Your task to perform on an android device: check the backup settings in the google photos Image 0: 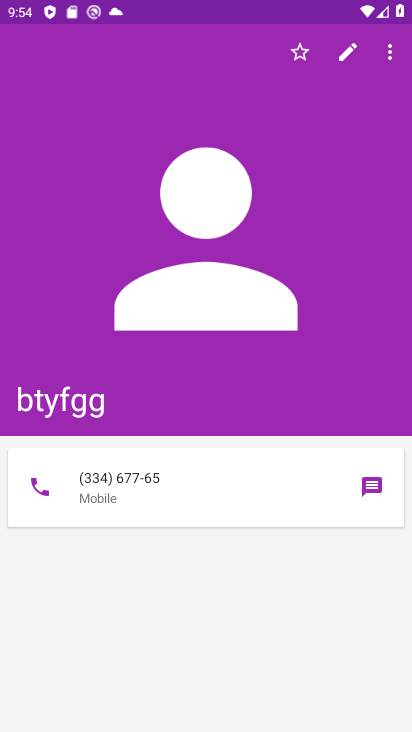
Step 0: press home button
Your task to perform on an android device: check the backup settings in the google photos Image 1: 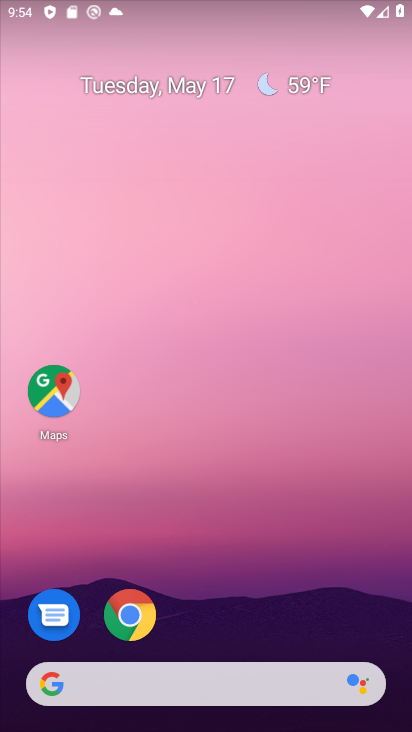
Step 1: drag from (138, 692) to (307, 0)
Your task to perform on an android device: check the backup settings in the google photos Image 2: 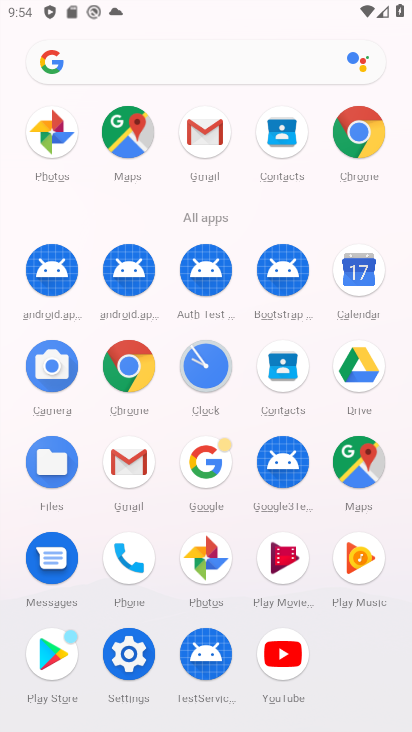
Step 2: click (45, 139)
Your task to perform on an android device: check the backup settings in the google photos Image 3: 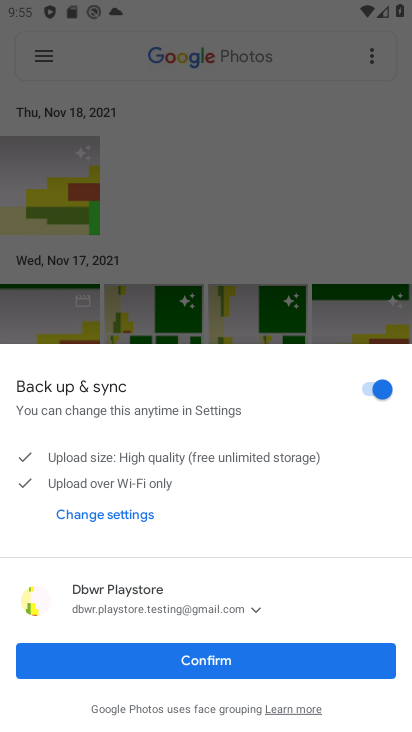
Step 3: click (181, 657)
Your task to perform on an android device: check the backup settings in the google photos Image 4: 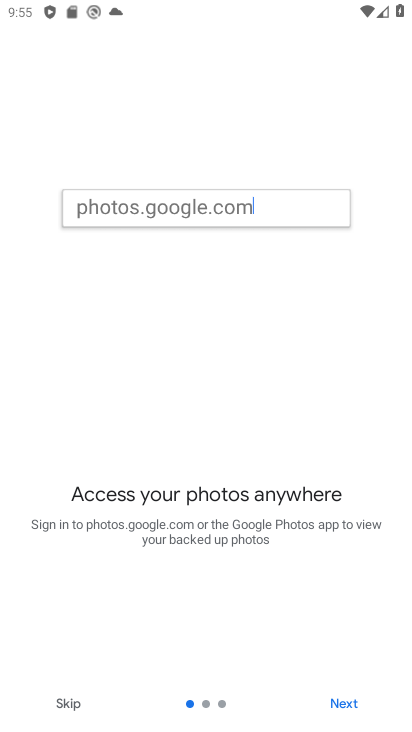
Step 4: click (334, 707)
Your task to perform on an android device: check the backup settings in the google photos Image 5: 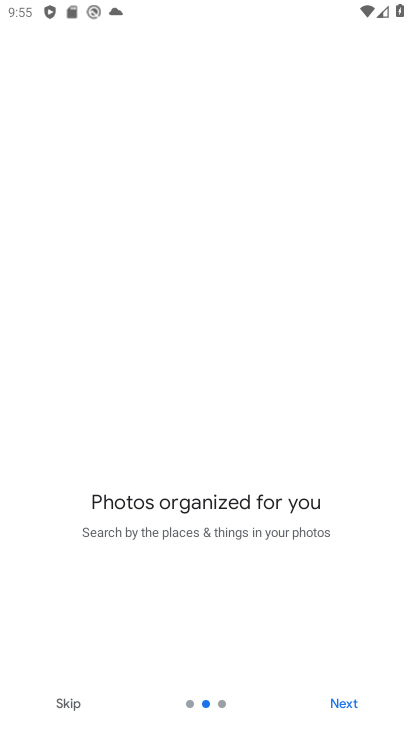
Step 5: click (340, 704)
Your task to perform on an android device: check the backup settings in the google photos Image 6: 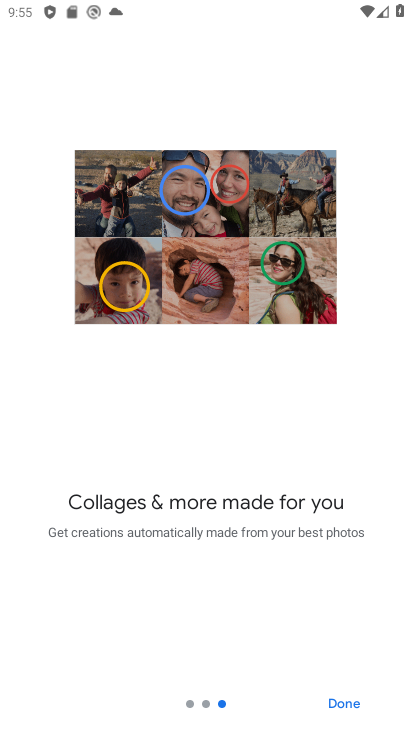
Step 6: click (353, 698)
Your task to perform on an android device: check the backup settings in the google photos Image 7: 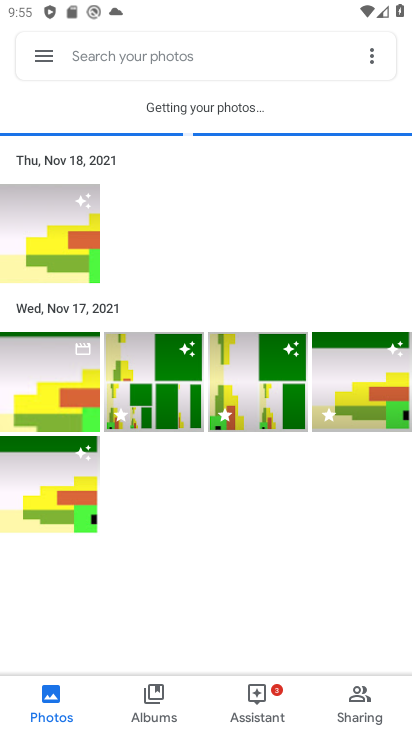
Step 7: click (45, 53)
Your task to perform on an android device: check the backup settings in the google photos Image 8: 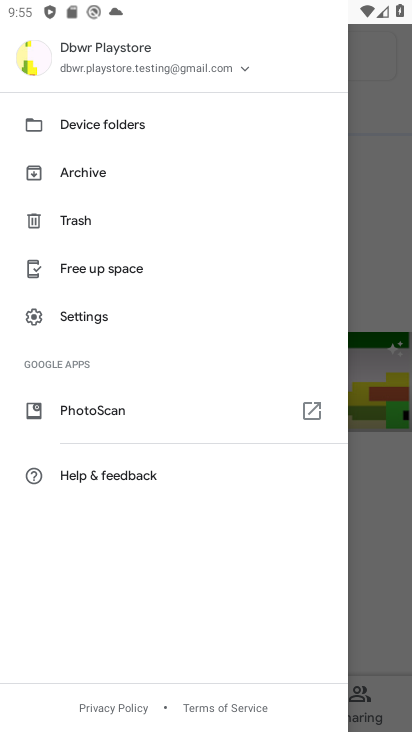
Step 8: click (89, 310)
Your task to perform on an android device: check the backup settings in the google photos Image 9: 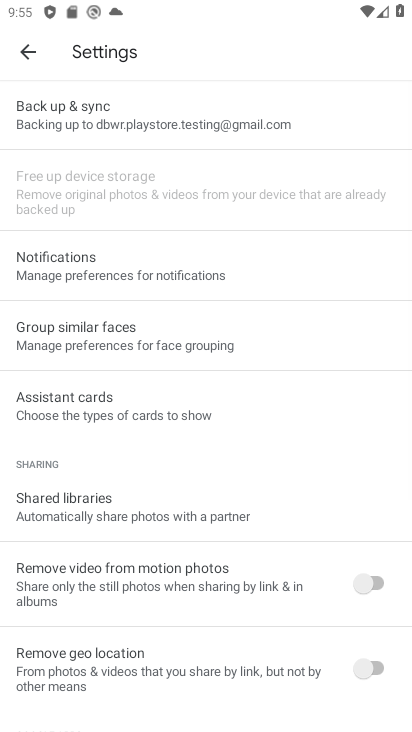
Step 9: click (122, 127)
Your task to perform on an android device: check the backup settings in the google photos Image 10: 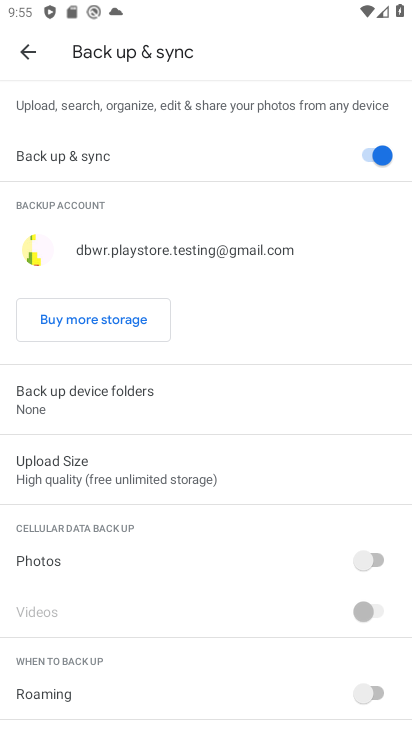
Step 10: task complete